Your task to perform on an android device: View the shopping cart on target. Image 0: 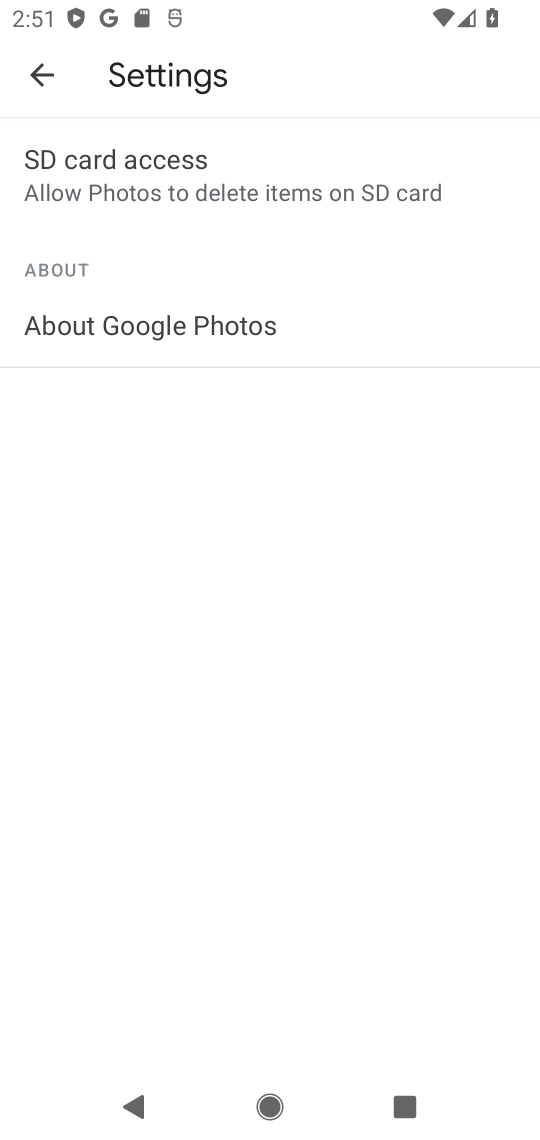
Step 0: press home button
Your task to perform on an android device: View the shopping cart on target. Image 1: 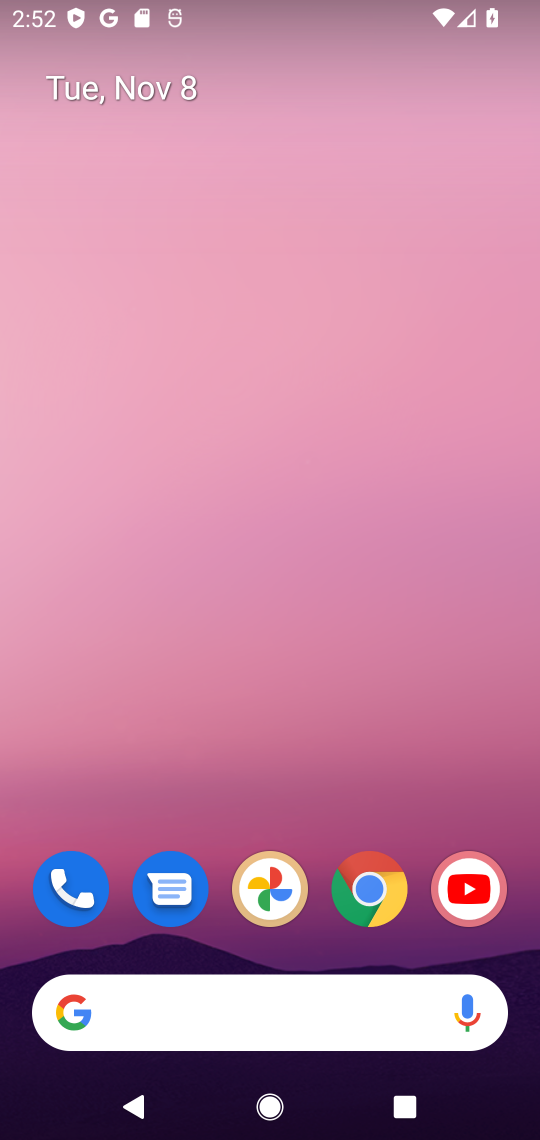
Step 1: click (369, 895)
Your task to perform on an android device: View the shopping cart on target. Image 2: 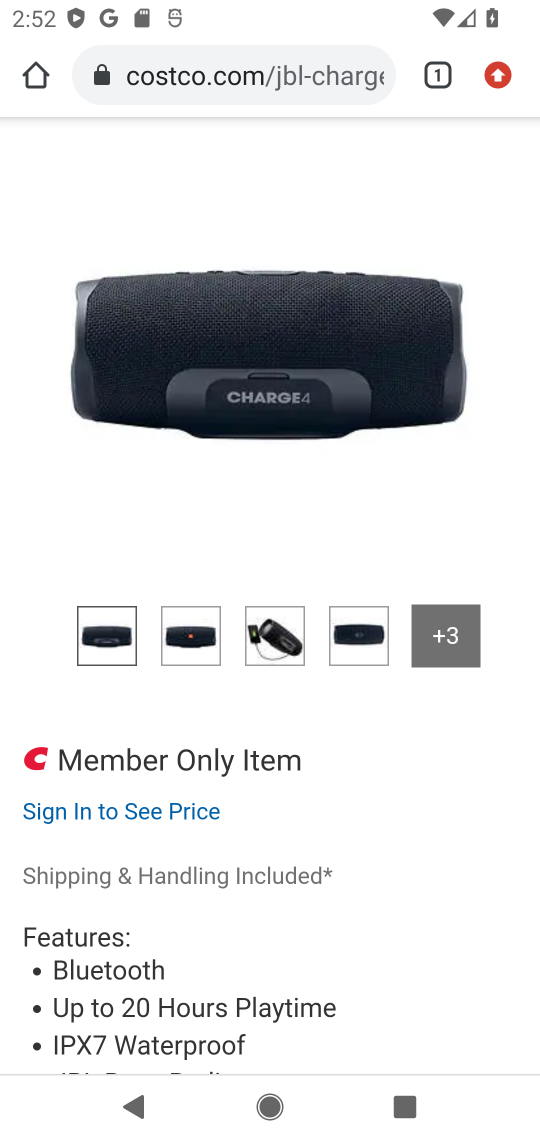
Step 2: click (228, 80)
Your task to perform on an android device: View the shopping cart on target. Image 3: 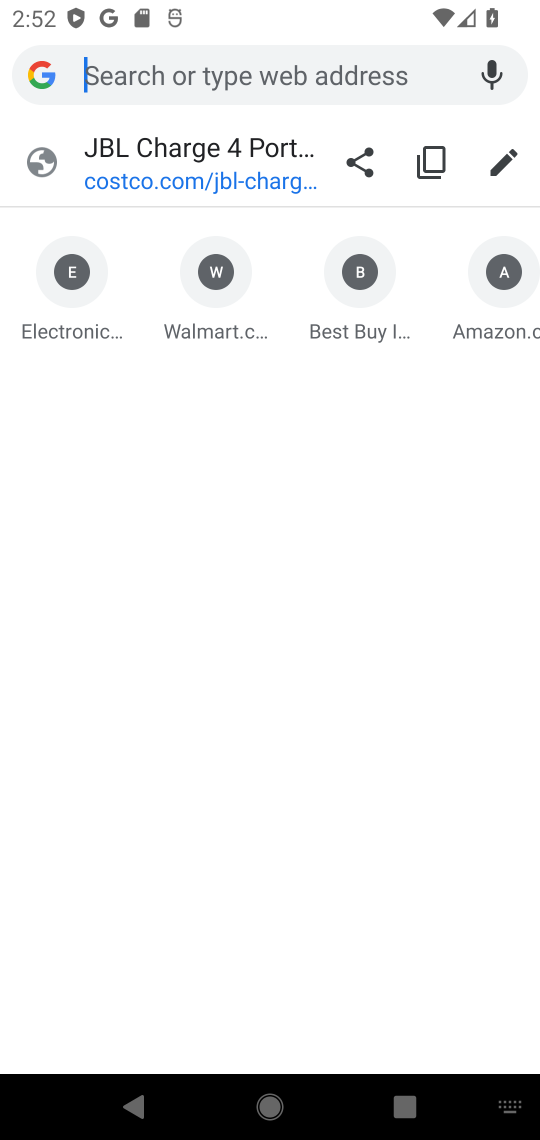
Step 3: type "target.com"
Your task to perform on an android device: View the shopping cart on target. Image 4: 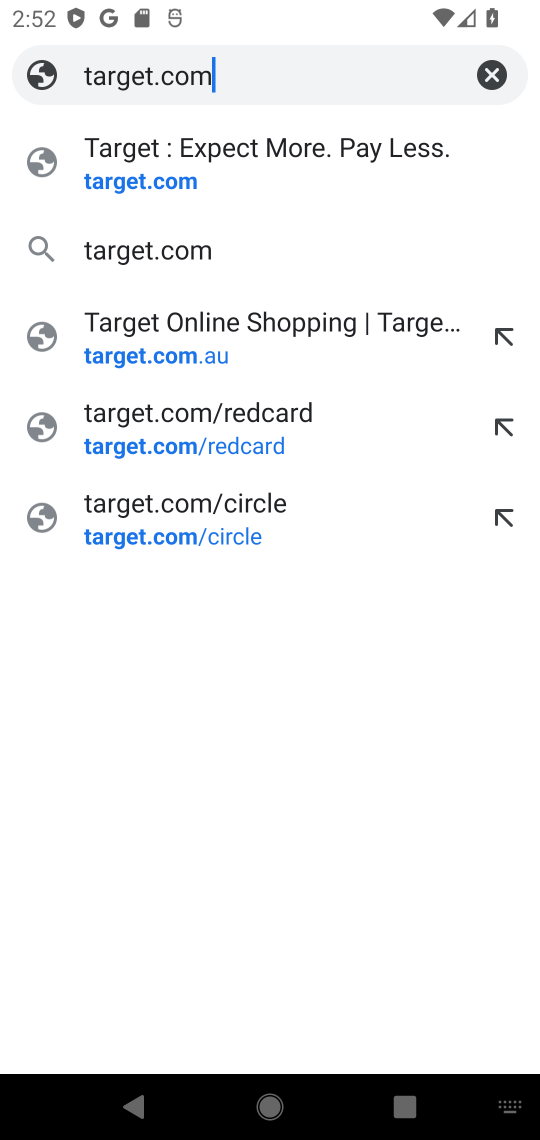
Step 4: click (144, 179)
Your task to perform on an android device: View the shopping cart on target. Image 5: 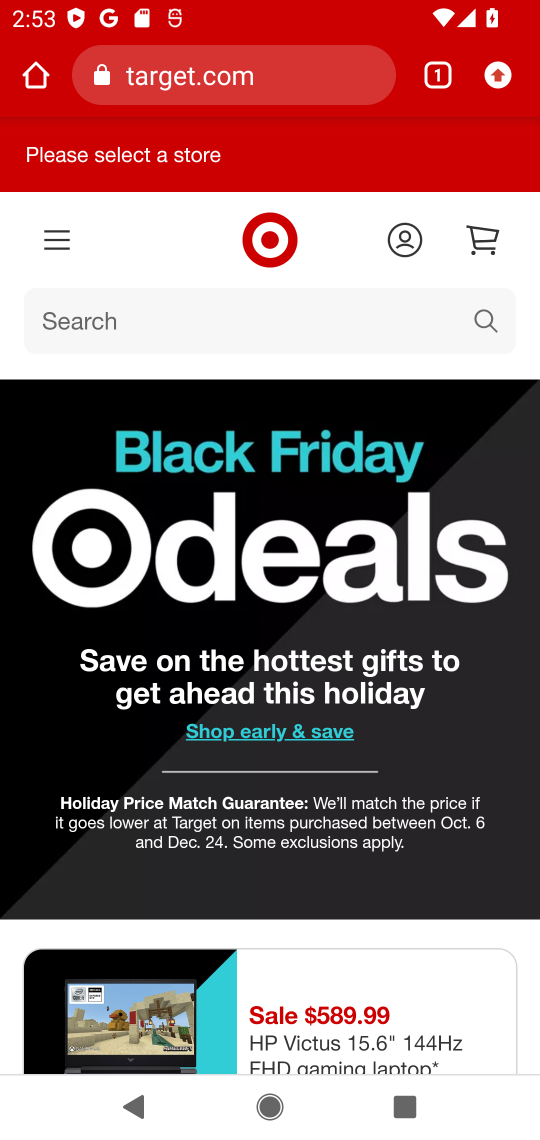
Step 5: click (497, 236)
Your task to perform on an android device: View the shopping cart on target. Image 6: 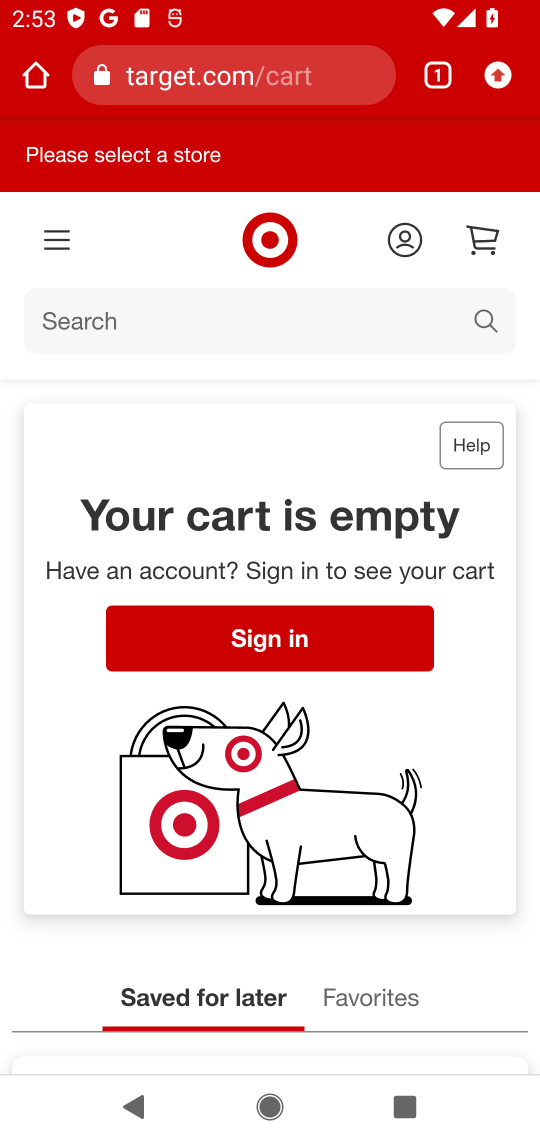
Step 6: task complete